Your task to perform on an android device: Open Amazon Image 0: 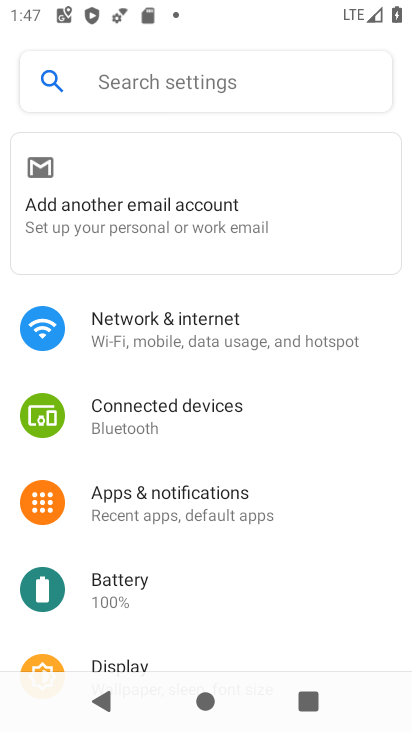
Step 0: press home button
Your task to perform on an android device: Open Amazon Image 1: 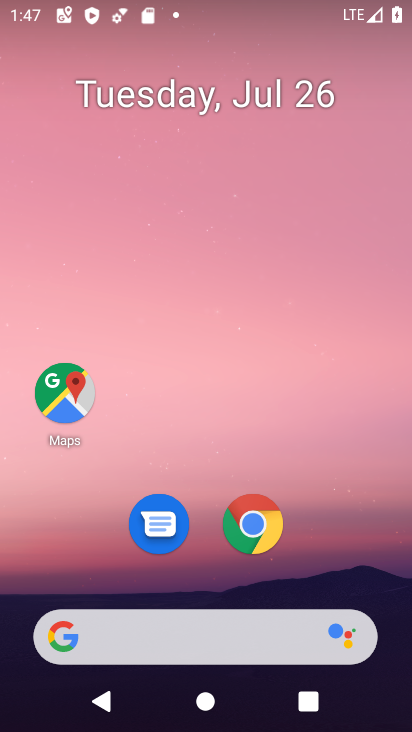
Step 1: click (254, 539)
Your task to perform on an android device: Open Amazon Image 2: 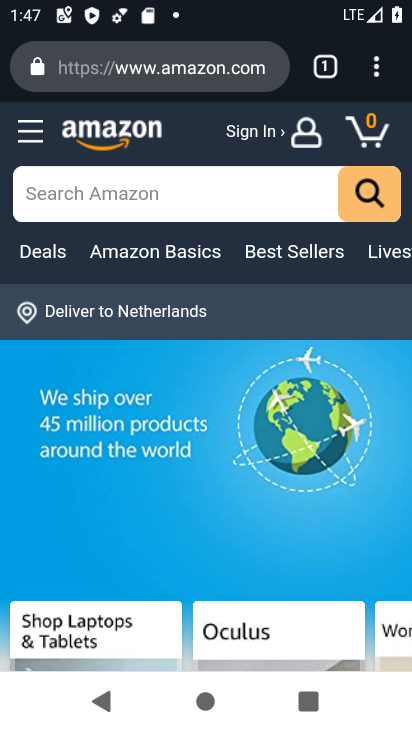
Step 2: task complete